Your task to perform on an android device: clear all cookies in the chrome app Image 0: 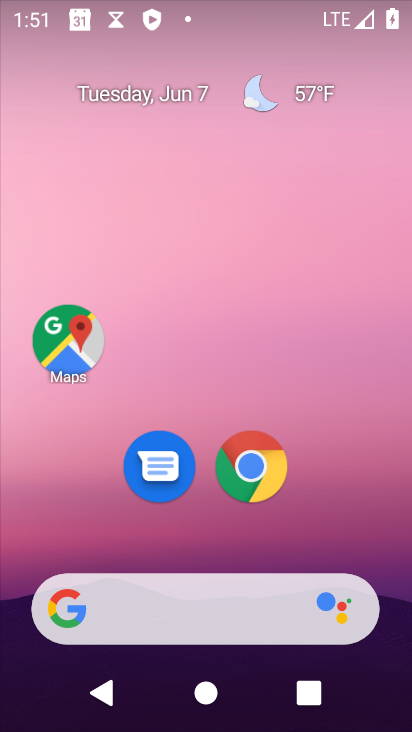
Step 0: click (240, 481)
Your task to perform on an android device: clear all cookies in the chrome app Image 1: 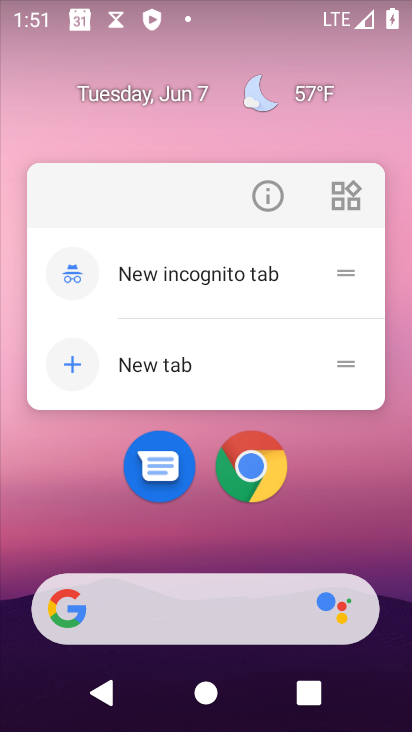
Step 1: click (240, 460)
Your task to perform on an android device: clear all cookies in the chrome app Image 2: 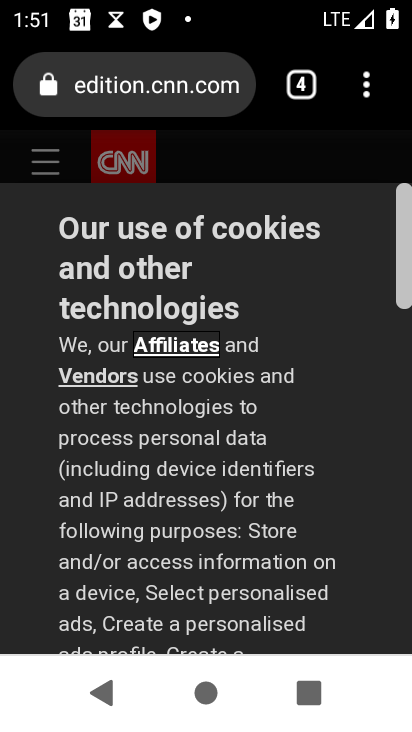
Step 2: drag from (366, 84) to (118, 466)
Your task to perform on an android device: clear all cookies in the chrome app Image 3: 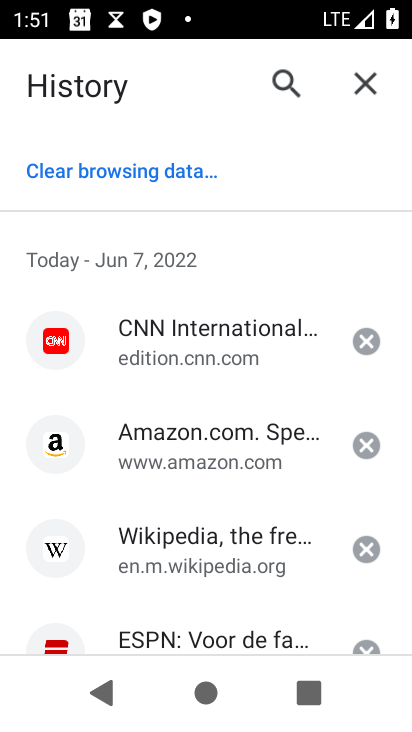
Step 3: click (146, 178)
Your task to perform on an android device: clear all cookies in the chrome app Image 4: 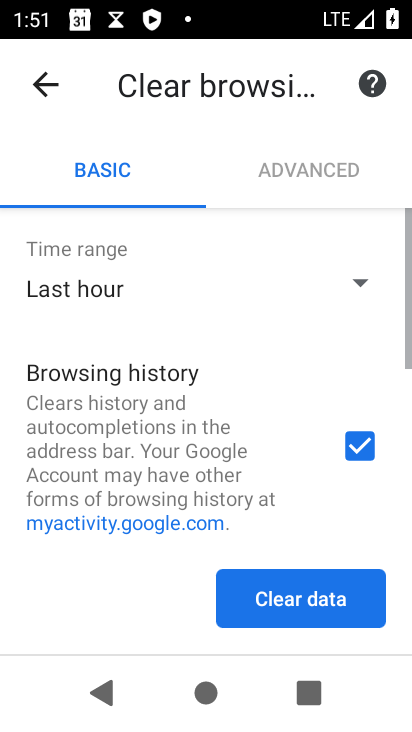
Step 4: drag from (152, 483) to (249, 128)
Your task to perform on an android device: clear all cookies in the chrome app Image 5: 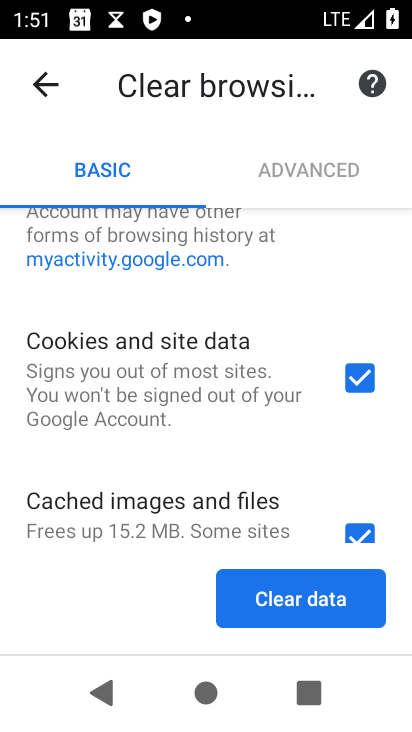
Step 5: click (357, 528)
Your task to perform on an android device: clear all cookies in the chrome app Image 6: 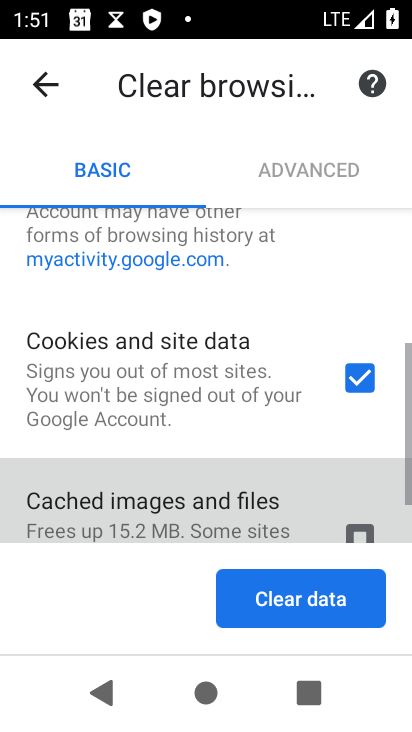
Step 6: drag from (250, 273) to (173, 557)
Your task to perform on an android device: clear all cookies in the chrome app Image 7: 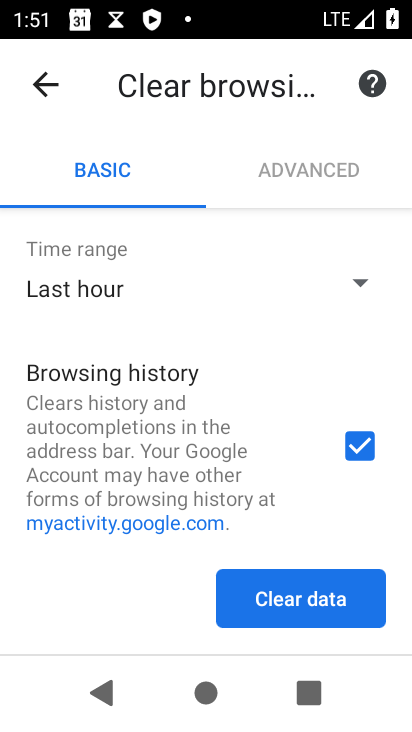
Step 7: click (349, 438)
Your task to perform on an android device: clear all cookies in the chrome app Image 8: 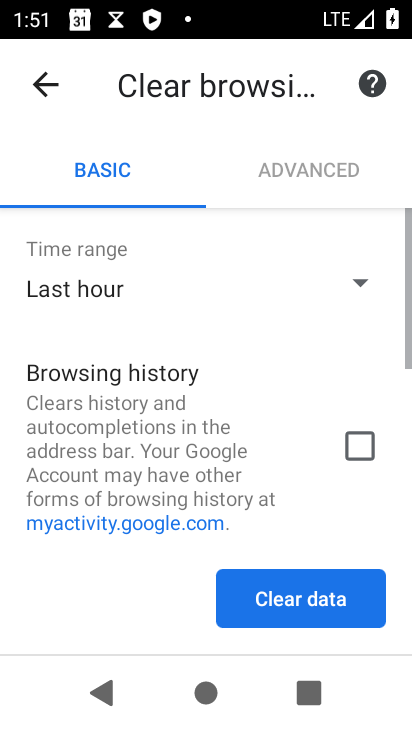
Step 8: task complete